Your task to perform on an android device: open wifi settings Image 0: 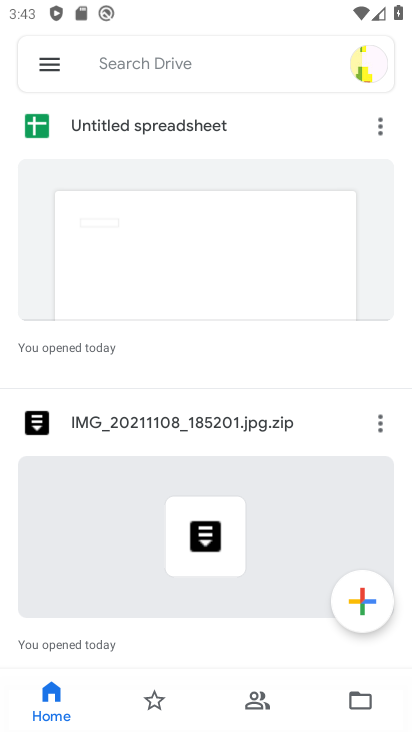
Step 0: press home button
Your task to perform on an android device: open wifi settings Image 1: 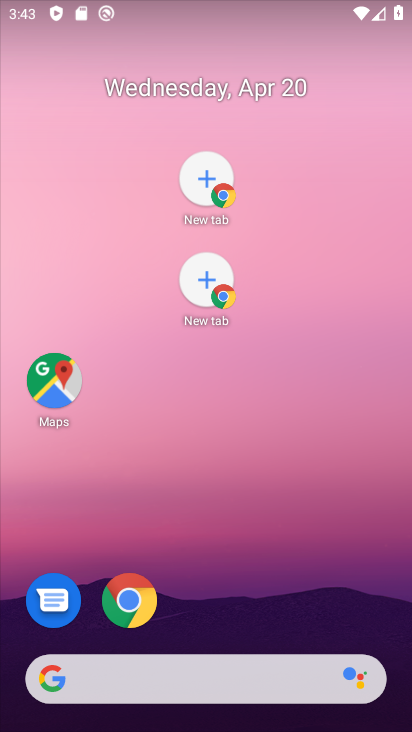
Step 1: drag from (221, 559) to (145, 193)
Your task to perform on an android device: open wifi settings Image 2: 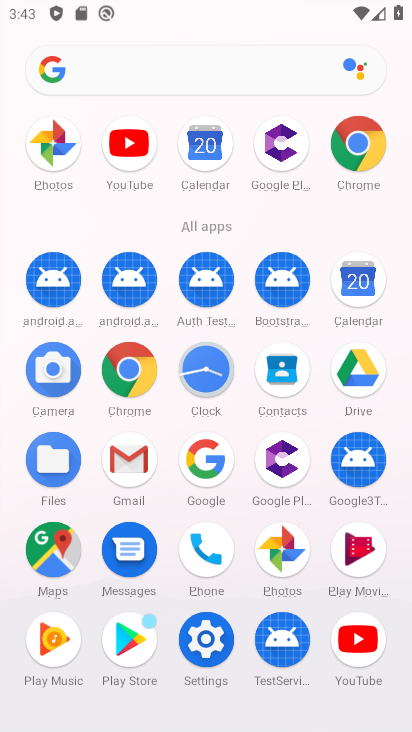
Step 2: click (220, 658)
Your task to perform on an android device: open wifi settings Image 3: 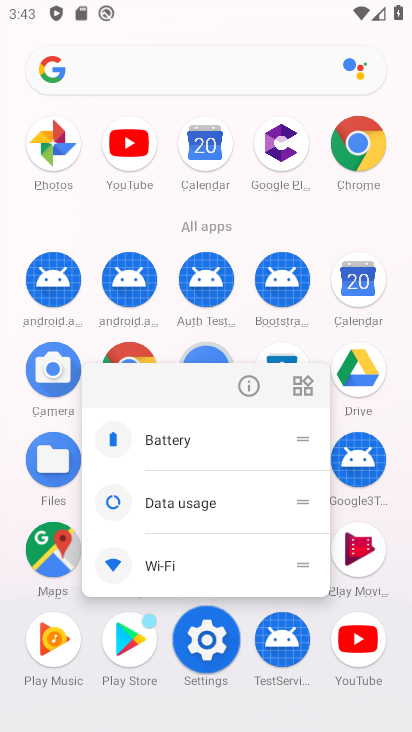
Step 3: click (220, 658)
Your task to perform on an android device: open wifi settings Image 4: 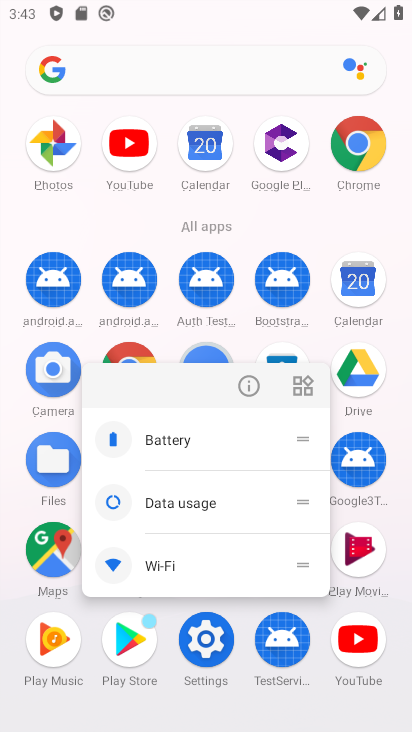
Step 4: click (179, 564)
Your task to perform on an android device: open wifi settings Image 5: 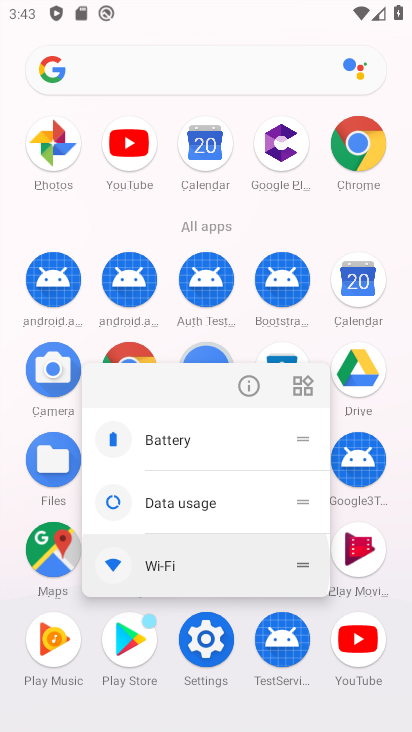
Step 5: click (179, 564)
Your task to perform on an android device: open wifi settings Image 6: 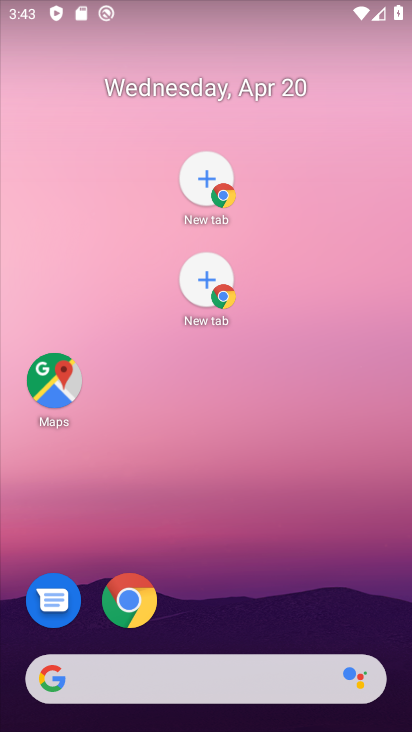
Step 6: drag from (312, 570) to (173, 127)
Your task to perform on an android device: open wifi settings Image 7: 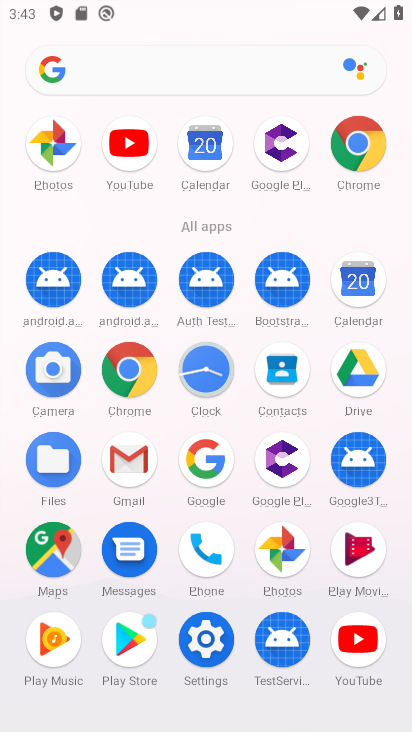
Step 7: click (201, 649)
Your task to perform on an android device: open wifi settings Image 8: 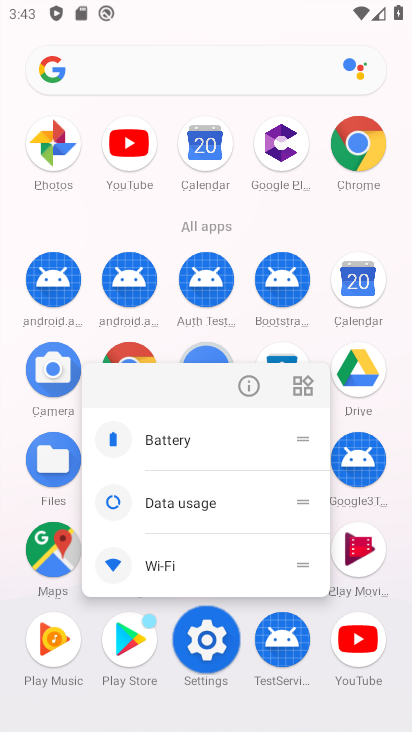
Step 8: click (198, 634)
Your task to perform on an android device: open wifi settings Image 9: 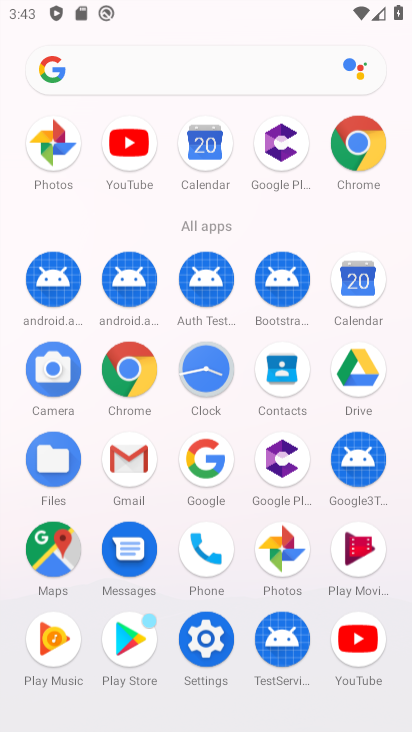
Step 9: click (198, 613)
Your task to perform on an android device: open wifi settings Image 10: 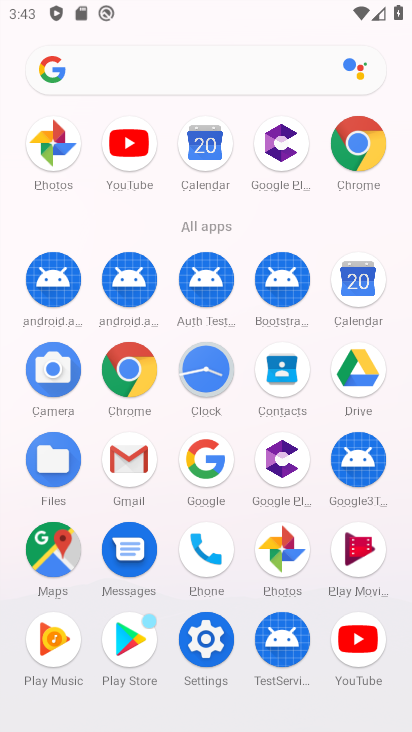
Step 10: click (198, 613)
Your task to perform on an android device: open wifi settings Image 11: 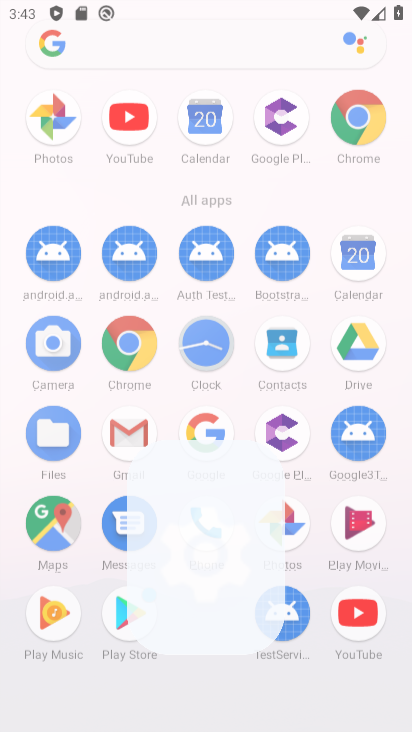
Step 11: click (198, 613)
Your task to perform on an android device: open wifi settings Image 12: 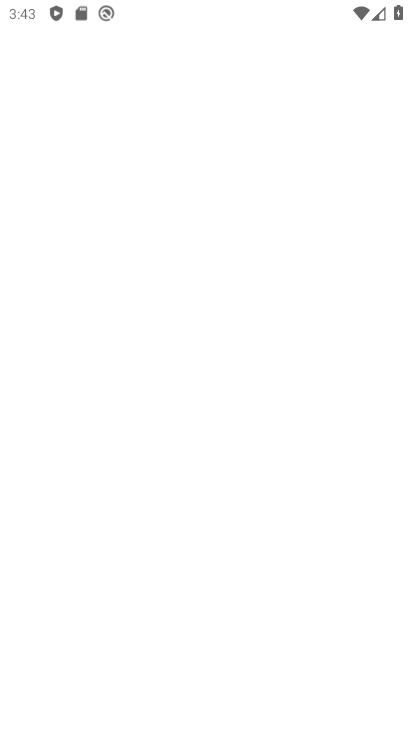
Step 12: click (198, 613)
Your task to perform on an android device: open wifi settings Image 13: 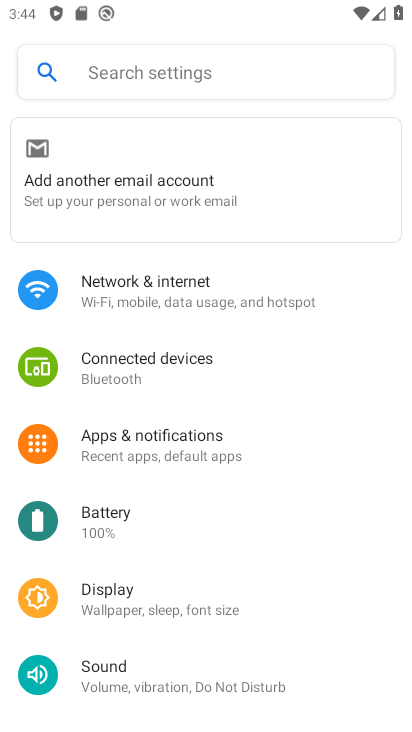
Step 13: click (144, 297)
Your task to perform on an android device: open wifi settings Image 14: 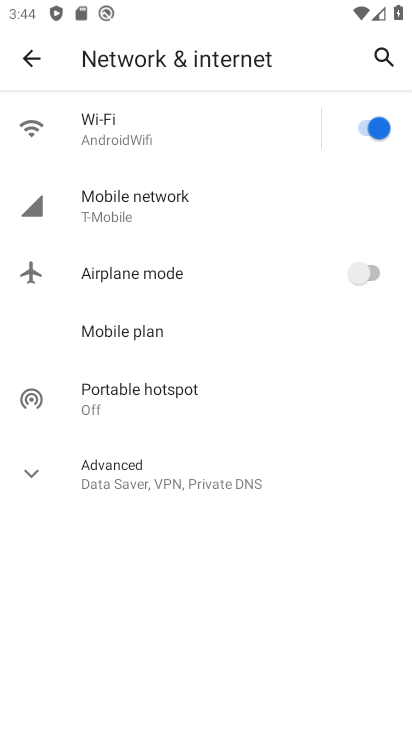
Step 14: task complete